Your task to perform on an android device: star an email in the gmail app Image 0: 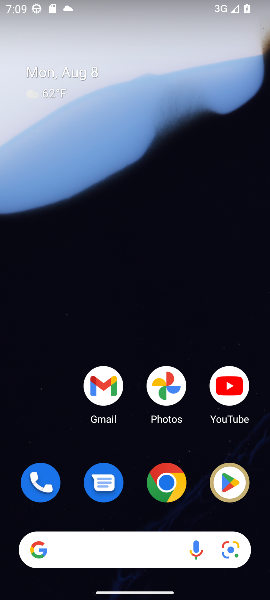
Step 0: drag from (151, 462) to (136, 60)
Your task to perform on an android device: star an email in the gmail app Image 1: 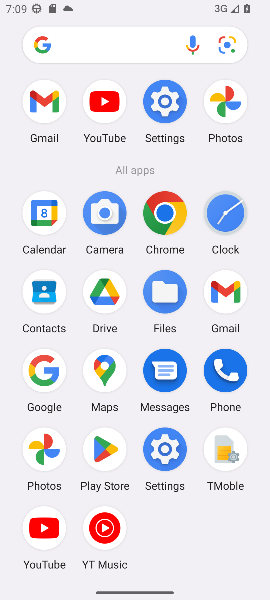
Step 1: click (31, 89)
Your task to perform on an android device: star an email in the gmail app Image 2: 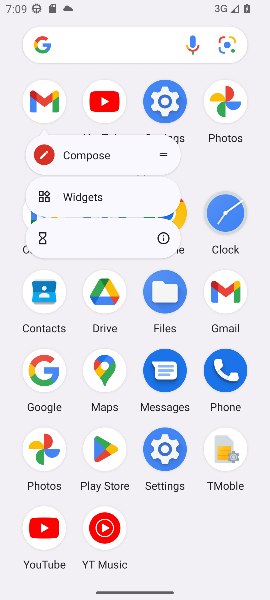
Step 2: click (31, 89)
Your task to perform on an android device: star an email in the gmail app Image 3: 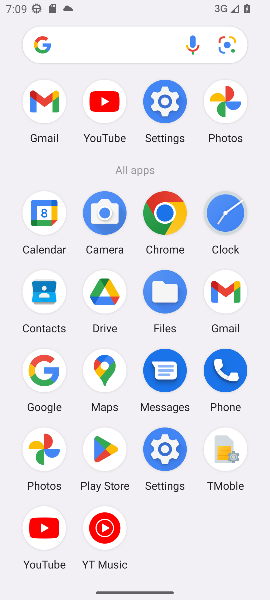
Step 3: click (43, 105)
Your task to perform on an android device: star an email in the gmail app Image 4: 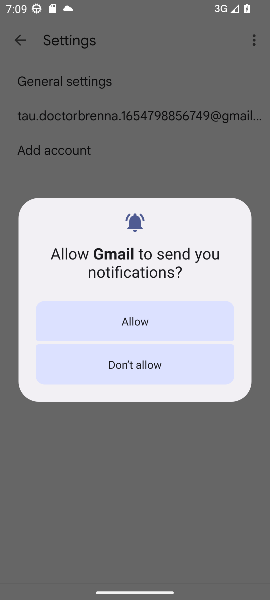
Step 4: click (154, 333)
Your task to perform on an android device: star an email in the gmail app Image 5: 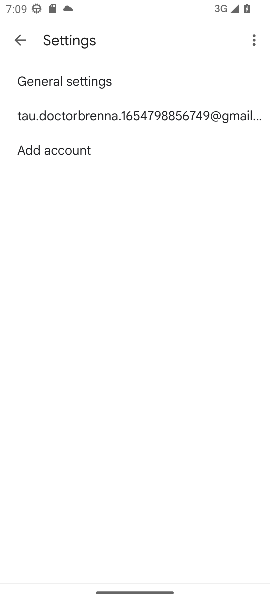
Step 5: click (25, 41)
Your task to perform on an android device: star an email in the gmail app Image 6: 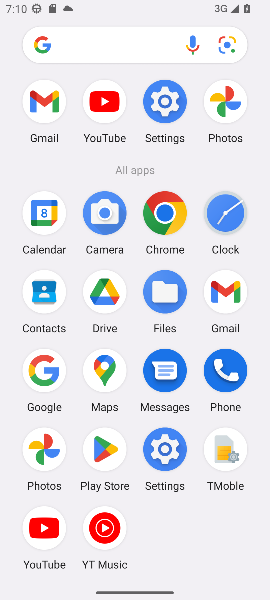
Step 6: click (56, 125)
Your task to perform on an android device: star an email in the gmail app Image 7: 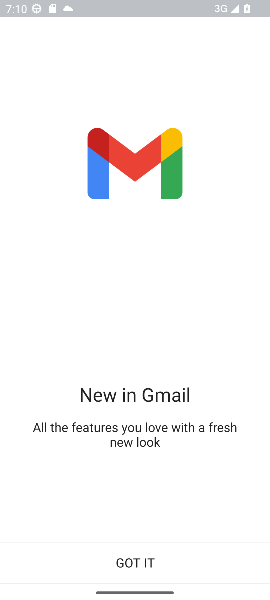
Step 7: click (158, 563)
Your task to perform on an android device: star an email in the gmail app Image 8: 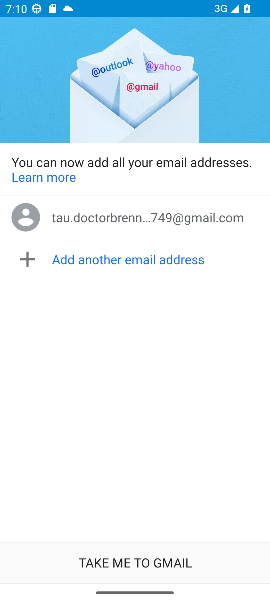
Step 8: click (142, 561)
Your task to perform on an android device: star an email in the gmail app Image 9: 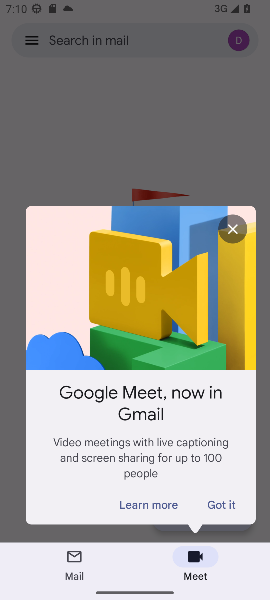
Step 9: click (237, 226)
Your task to perform on an android device: star an email in the gmail app Image 10: 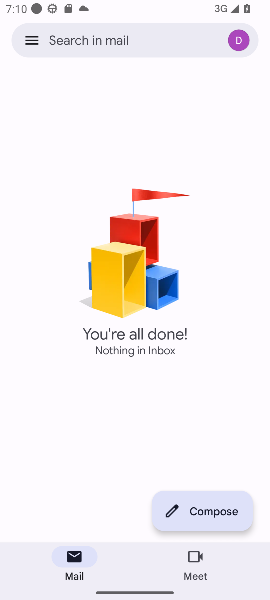
Step 10: click (41, 30)
Your task to perform on an android device: star an email in the gmail app Image 11: 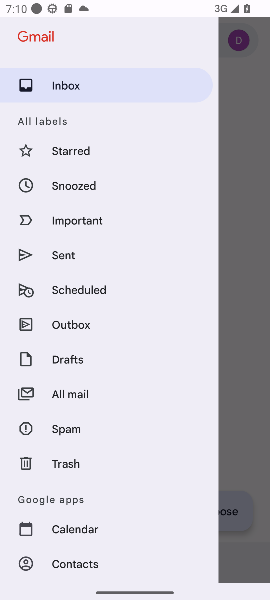
Step 11: click (65, 397)
Your task to perform on an android device: star an email in the gmail app Image 12: 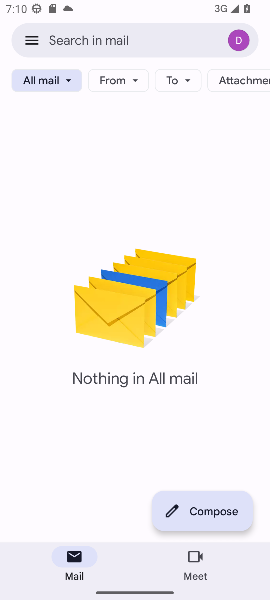
Step 12: task complete